Your task to perform on an android device: see tabs open on other devices in the chrome app Image 0: 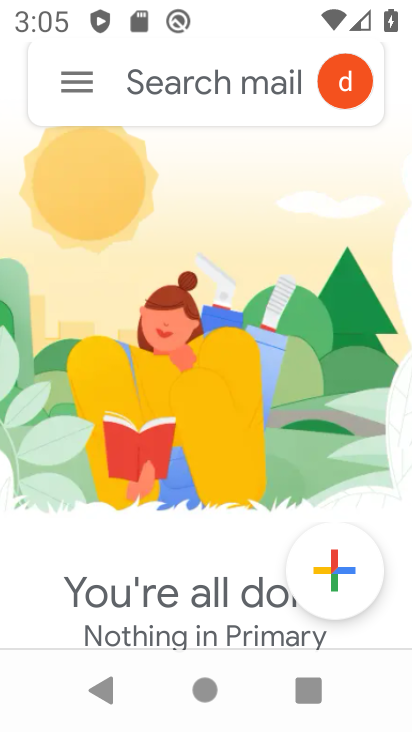
Step 0: click (69, 81)
Your task to perform on an android device: see tabs open on other devices in the chrome app Image 1: 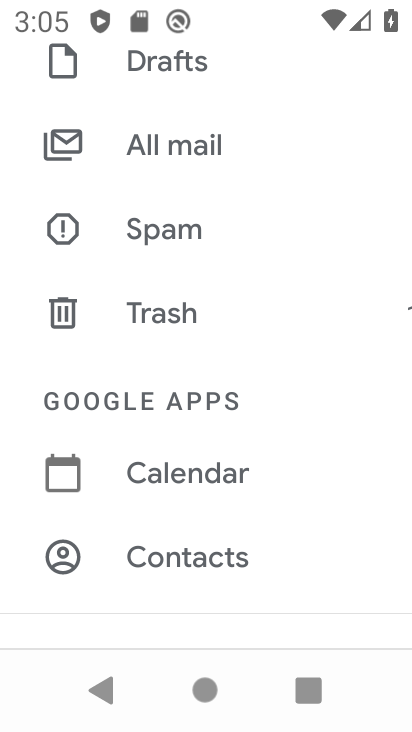
Step 1: press home button
Your task to perform on an android device: see tabs open on other devices in the chrome app Image 2: 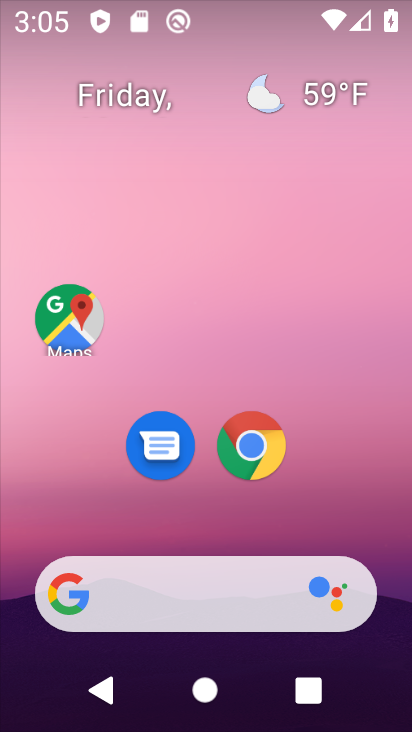
Step 2: click (248, 446)
Your task to perform on an android device: see tabs open on other devices in the chrome app Image 3: 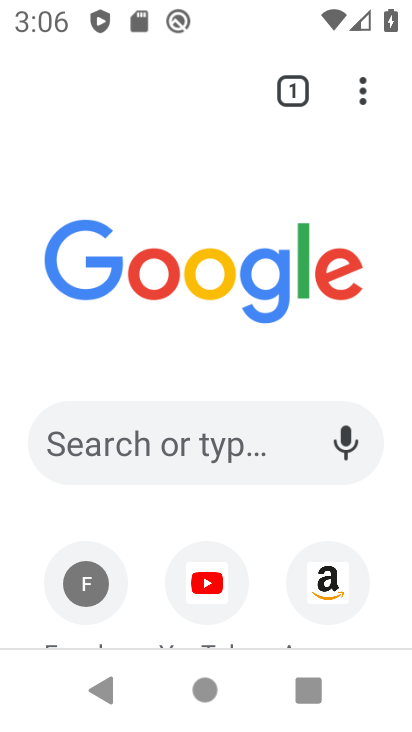
Step 3: click (361, 93)
Your task to perform on an android device: see tabs open on other devices in the chrome app Image 4: 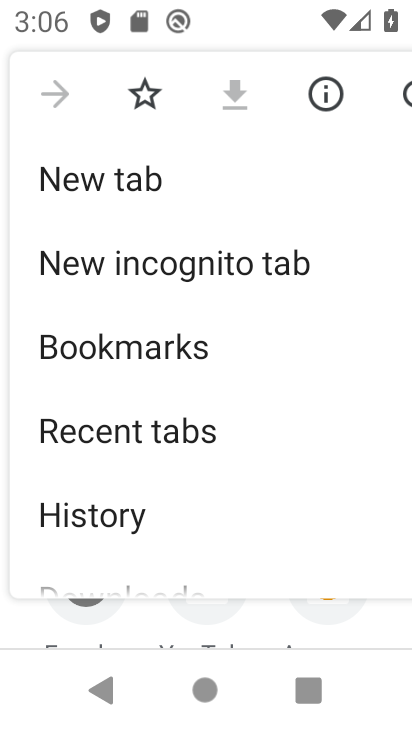
Step 4: click (116, 425)
Your task to perform on an android device: see tabs open on other devices in the chrome app Image 5: 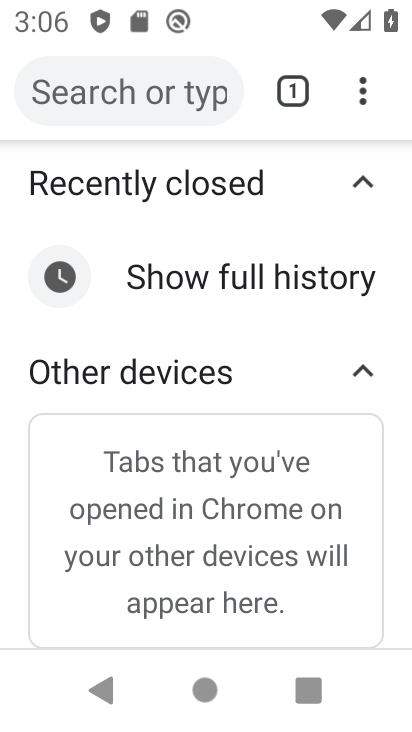
Step 5: task complete